Your task to perform on an android device: Open calendar and show me the second week of next month Image 0: 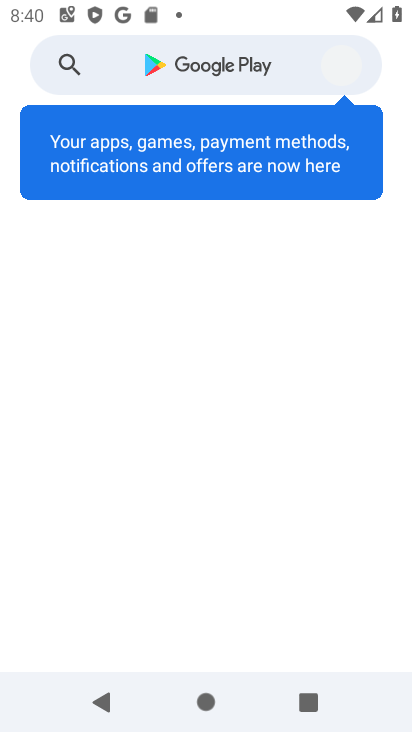
Step 0: press home button
Your task to perform on an android device: Open calendar and show me the second week of next month Image 1: 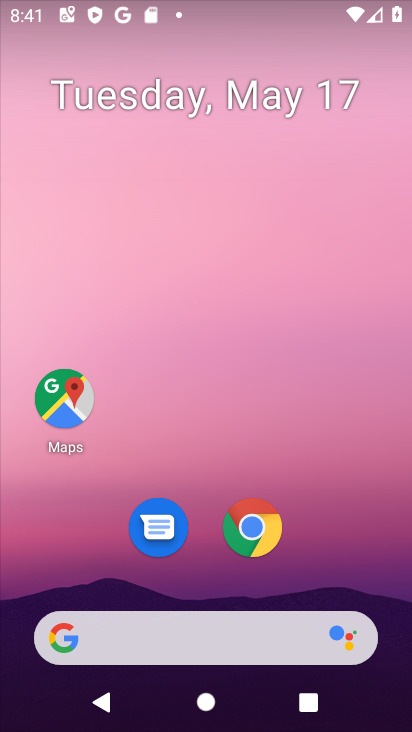
Step 1: drag from (245, 583) to (396, 634)
Your task to perform on an android device: Open calendar and show me the second week of next month Image 2: 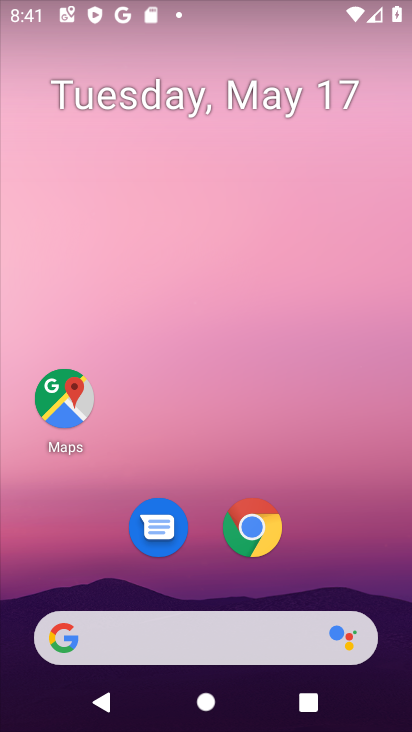
Step 2: drag from (228, 626) to (160, 2)
Your task to perform on an android device: Open calendar and show me the second week of next month Image 3: 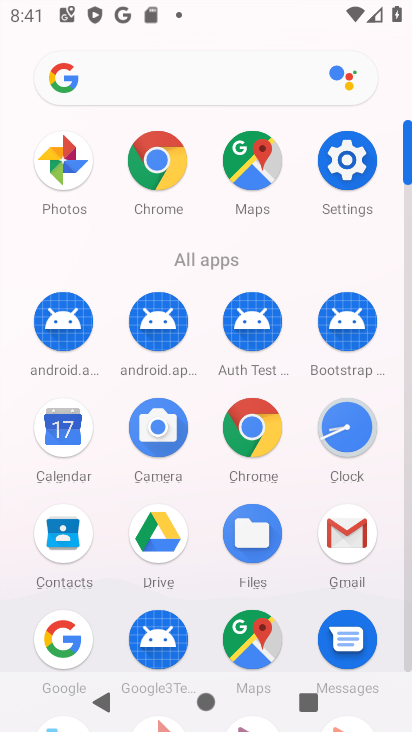
Step 3: click (71, 432)
Your task to perform on an android device: Open calendar and show me the second week of next month Image 4: 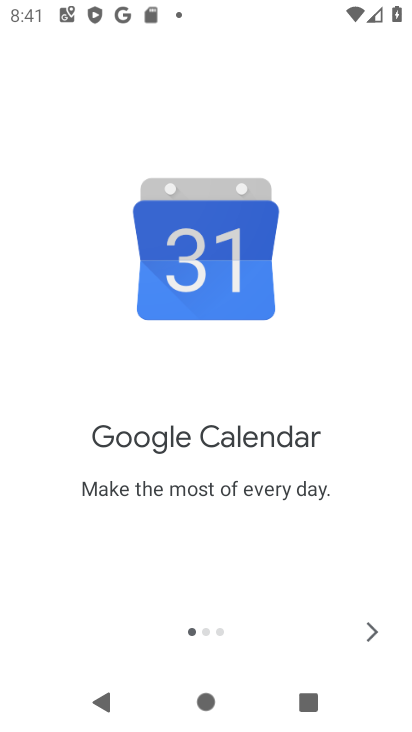
Step 4: click (364, 623)
Your task to perform on an android device: Open calendar and show me the second week of next month Image 5: 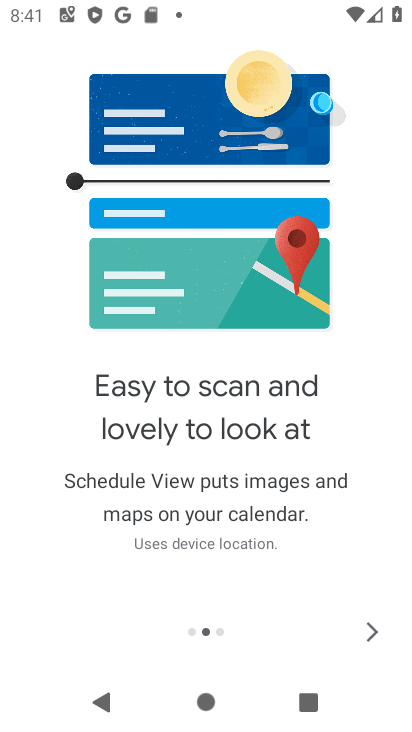
Step 5: click (366, 624)
Your task to perform on an android device: Open calendar and show me the second week of next month Image 6: 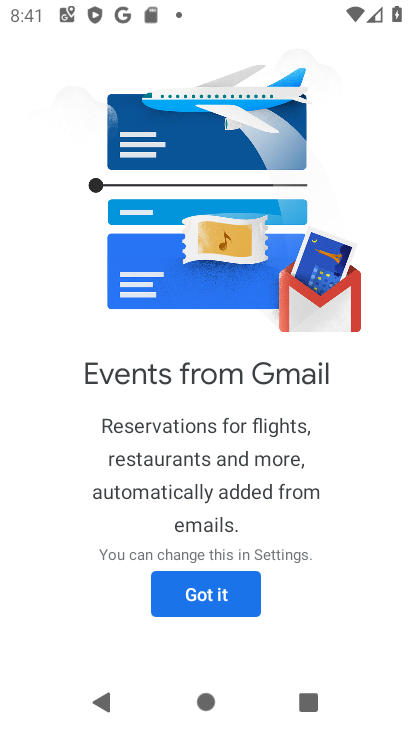
Step 6: click (235, 592)
Your task to perform on an android device: Open calendar and show me the second week of next month Image 7: 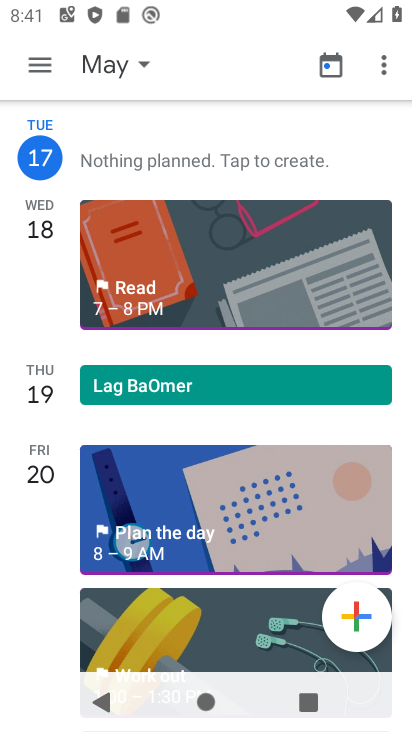
Step 7: click (44, 73)
Your task to perform on an android device: Open calendar and show me the second week of next month Image 8: 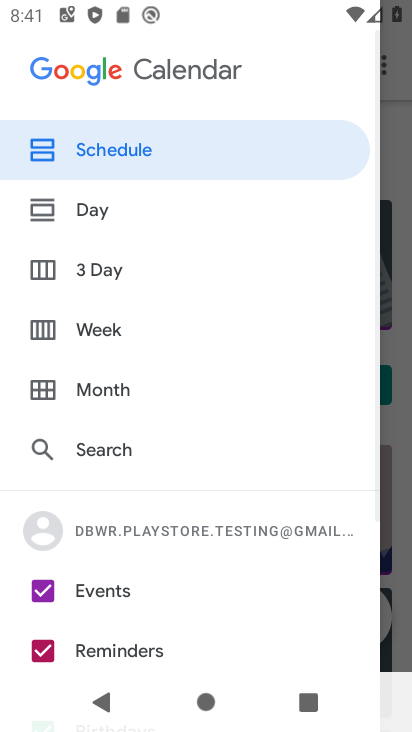
Step 8: click (111, 325)
Your task to perform on an android device: Open calendar and show me the second week of next month Image 9: 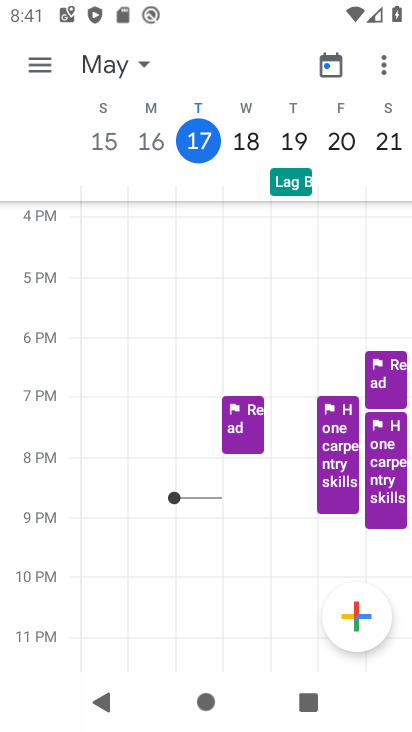
Step 9: task complete